Your task to perform on an android device: Empty the shopping cart on walmart. Search for "macbook air" on walmart, select the first entry, add it to the cart, then select checkout. Image 0: 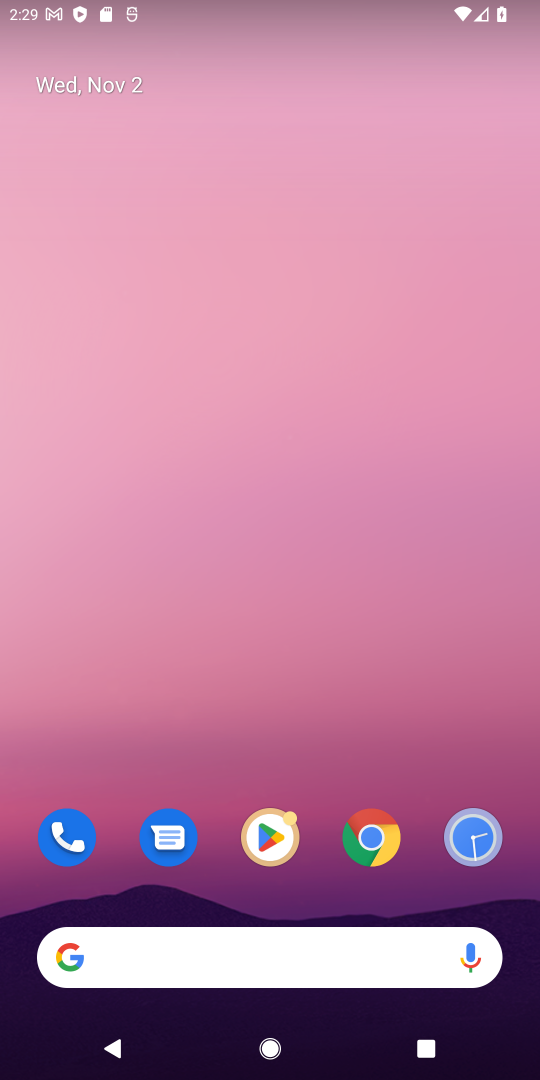
Step 0: press home button
Your task to perform on an android device: Empty the shopping cart on walmart. Search for "macbook air" on walmart, select the first entry, add it to the cart, then select checkout. Image 1: 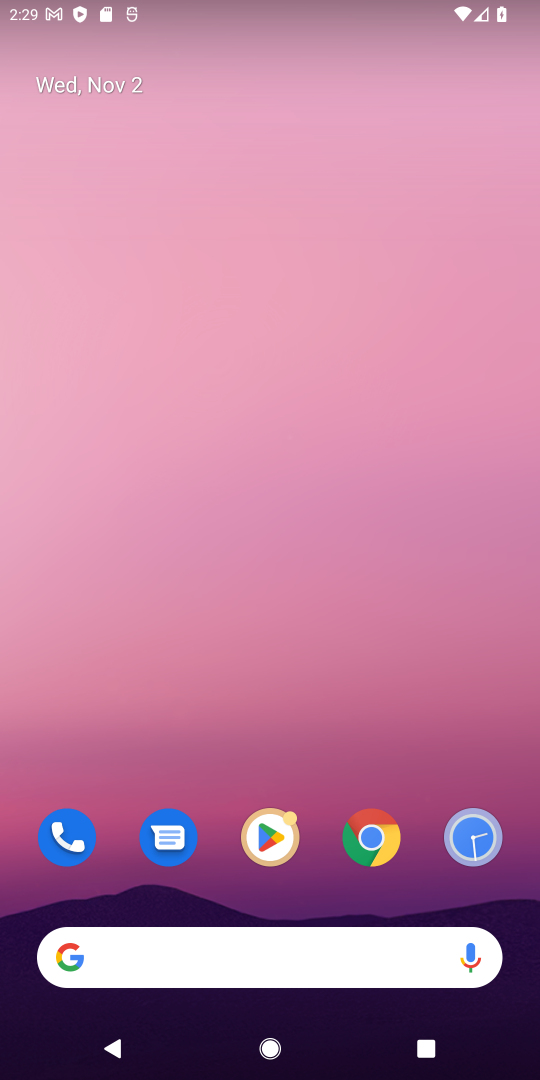
Step 1: drag from (314, 794) to (359, 3)
Your task to perform on an android device: Empty the shopping cart on walmart. Search for "macbook air" on walmart, select the first entry, add it to the cart, then select checkout. Image 2: 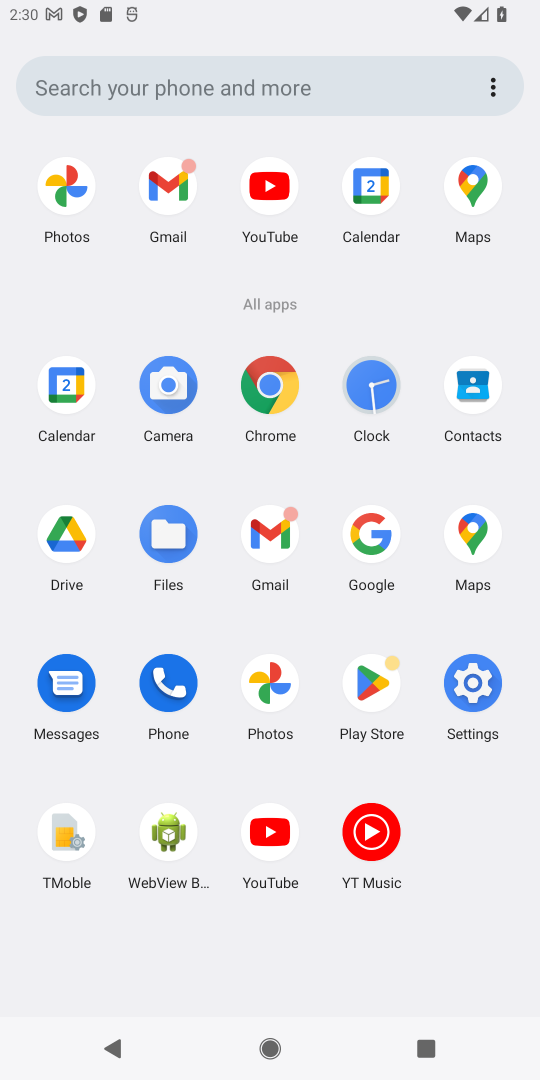
Step 2: click (269, 380)
Your task to perform on an android device: Empty the shopping cart on walmart. Search for "macbook air" on walmart, select the first entry, add it to the cart, then select checkout. Image 3: 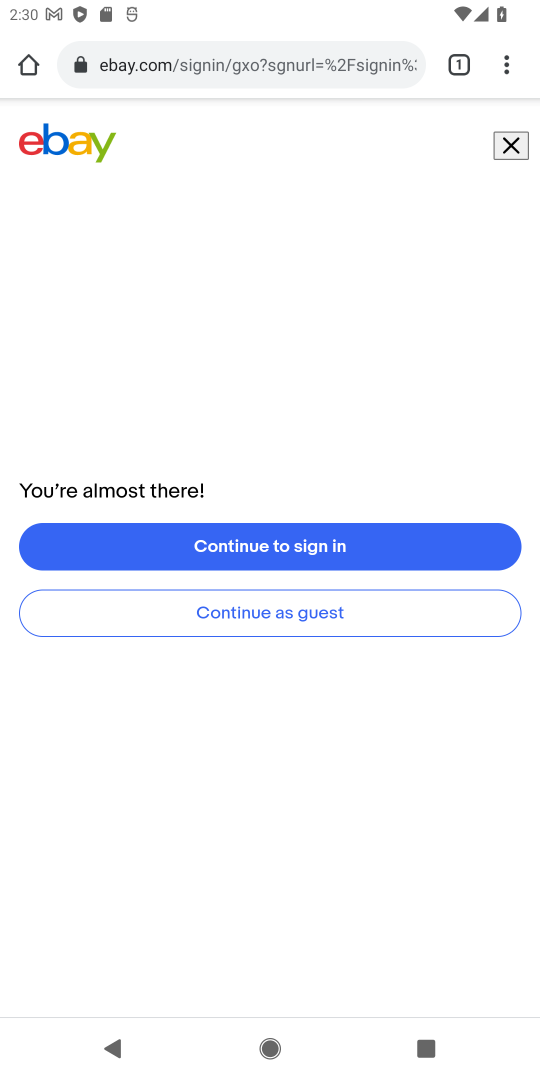
Step 3: click (206, 61)
Your task to perform on an android device: Empty the shopping cart on walmart. Search for "macbook air" on walmart, select the first entry, add it to the cart, then select checkout. Image 4: 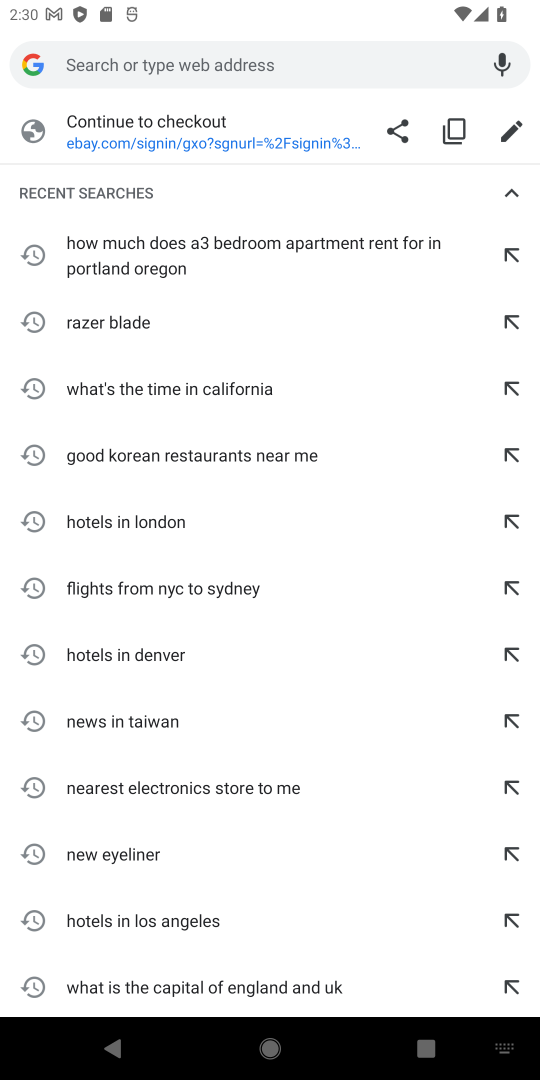
Step 4: type "walmart"
Your task to perform on an android device: Empty the shopping cart on walmart. Search for "macbook air" on walmart, select the first entry, add it to the cart, then select checkout. Image 5: 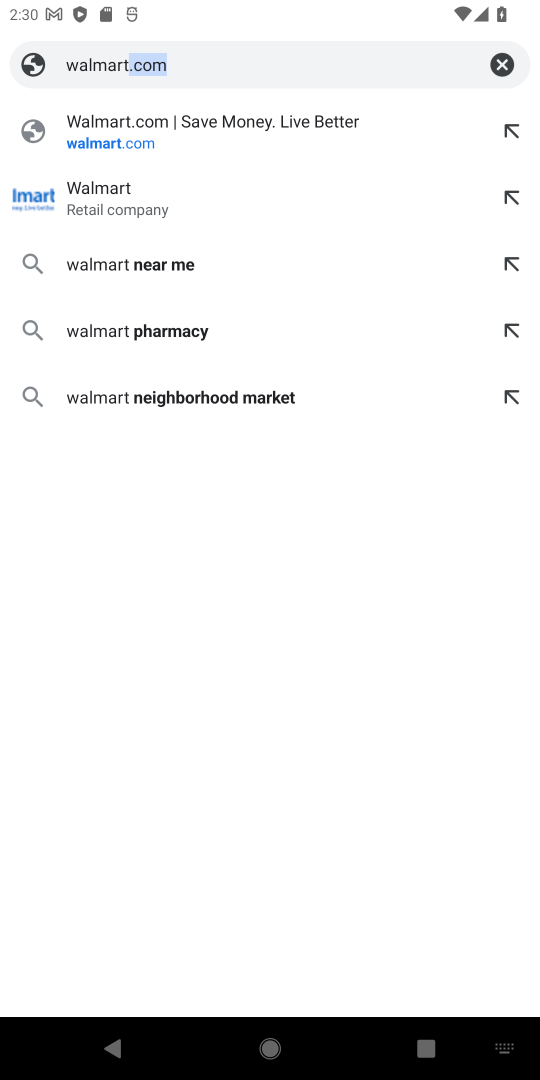
Step 5: click (139, 130)
Your task to perform on an android device: Empty the shopping cart on walmart. Search for "macbook air" on walmart, select the first entry, add it to the cart, then select checkout. Image 6: 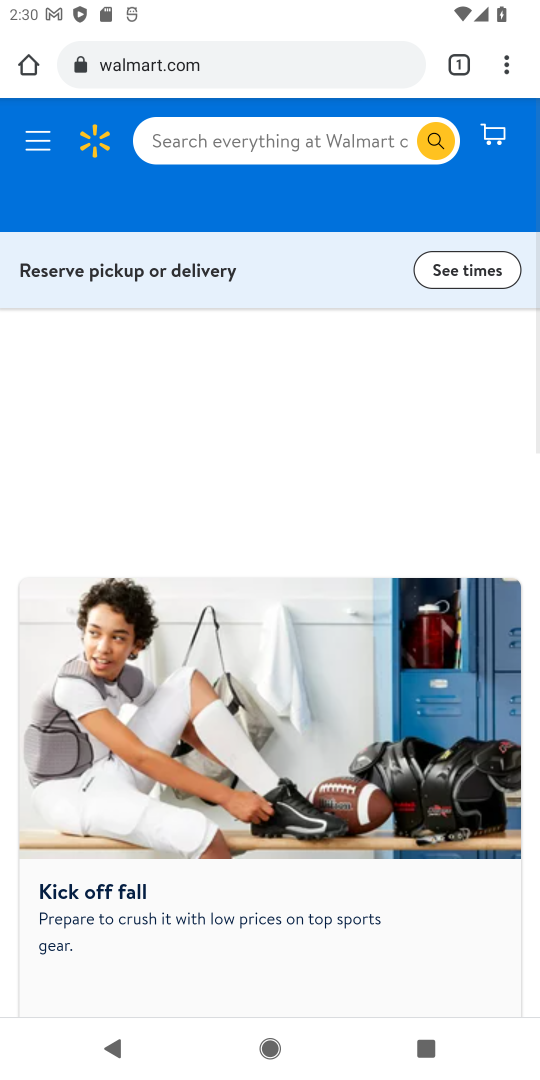
Step 6: click (211, 131)
Your task to perform on an android device: Empty the shopping cart on walmart. Search for "macbook air" on walmart, select the first entry, add it to the cart, then select checkout. Image 7: 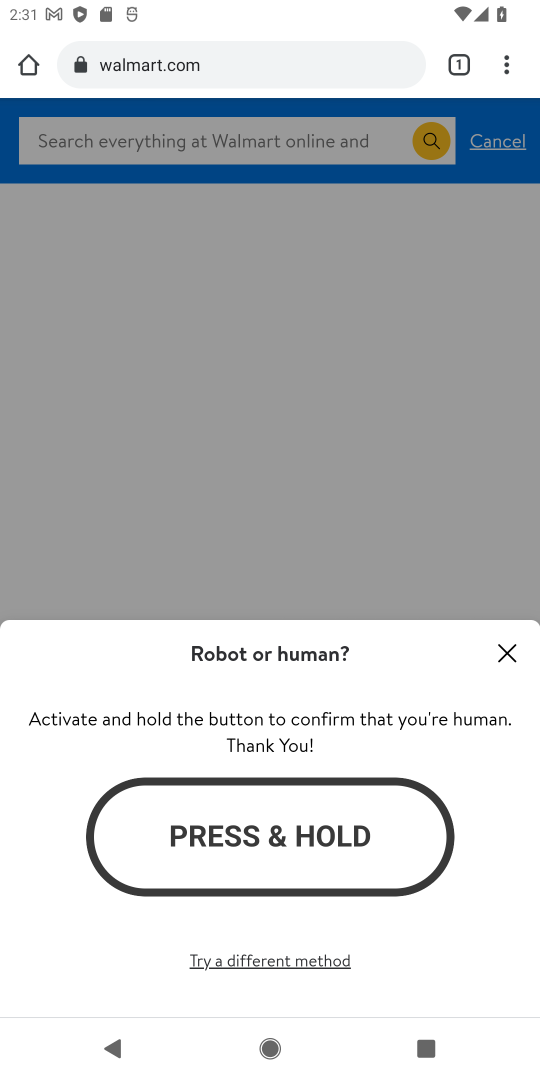
Step 7: click (511, 645)
Your task to perform on an android device: Empty the shopping cart on walmart. Search for "macbook air" on walmart, select the first entry, add it to the cart, then select checkout. Image 8: 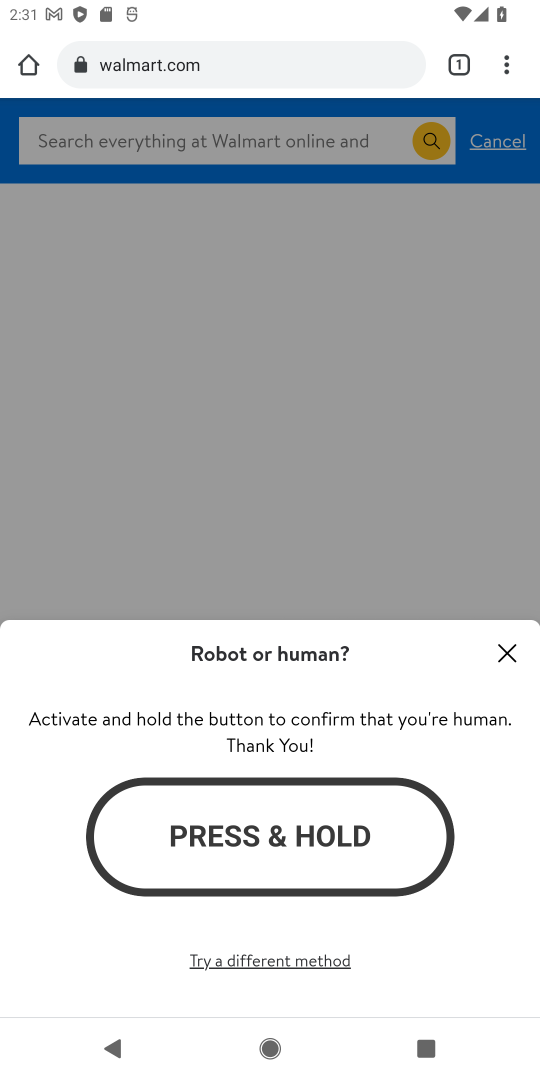
Step 8: click (502, 646)
Your task to perform on an android device: Empty the shopping cart on walmart. Search for "macbook air" on walmart, select the first entry, add it to the cart, then select checkout. Image 9: 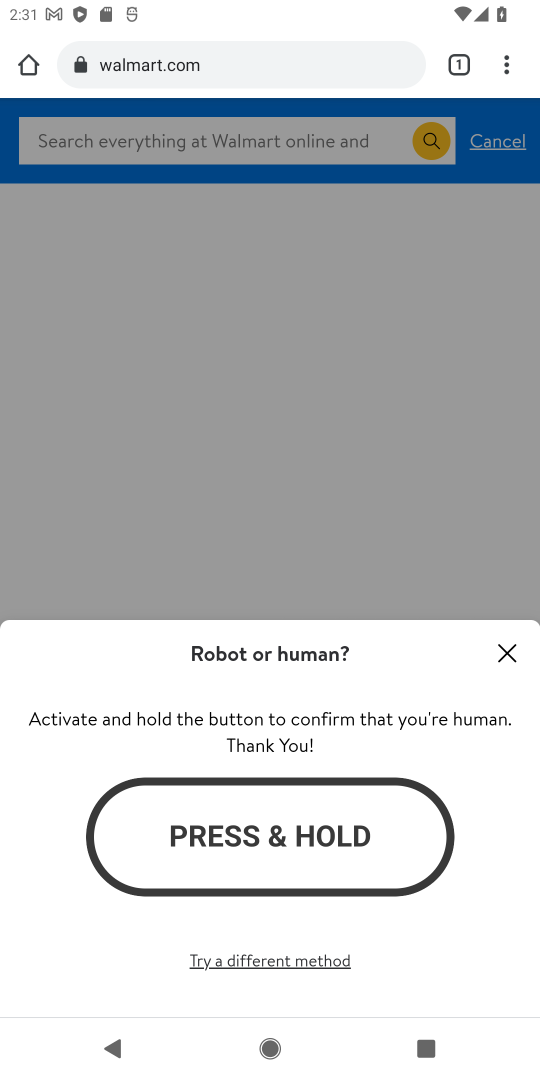
Step 9: click (91, 140)
Your task to perform on an android device: Empty the shopping cart on walmart. Search for "macbook air" on walmart, select the first entry, add it to the cart, then select checkout. Image 10: 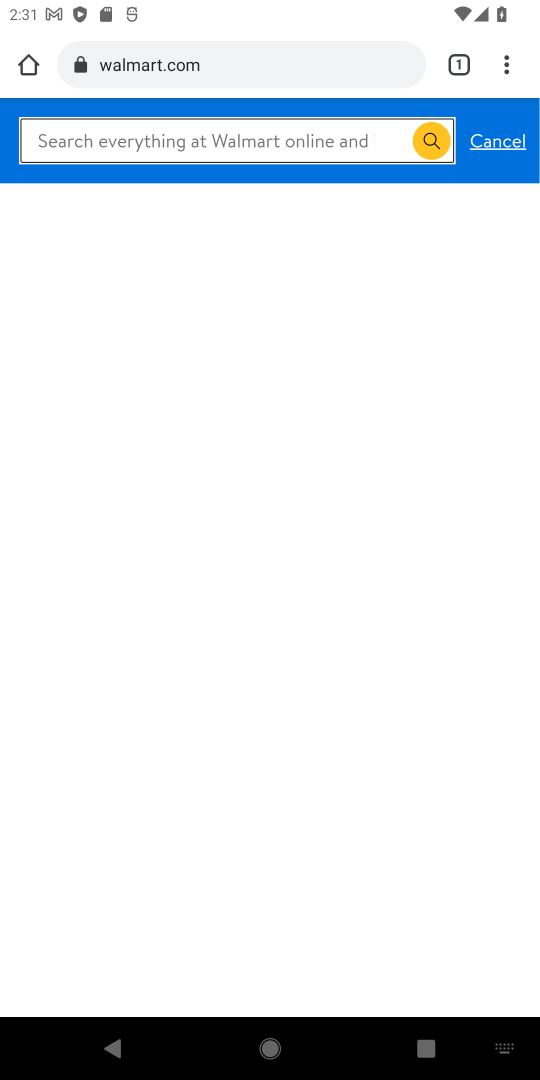
Step 10: type "macbook air"
Your task to perform on an android device: Empty the shopping cart on walmart. Search for "macbook air" on walmart, select the first entry, add it to the cart, then select checkout. Image 11: 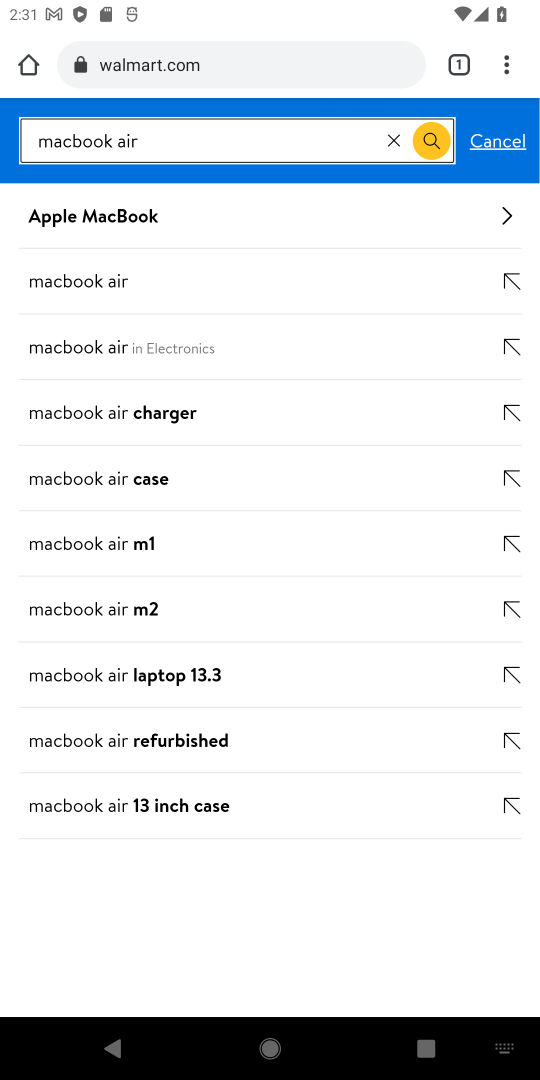
Step 11: click (109, 290)
Your task to perform on an android device: Empty the shopping cart on walmart. Search for "macbook air" on walmart, select the first entry, add it to the cart, then select checkout. Image 12: 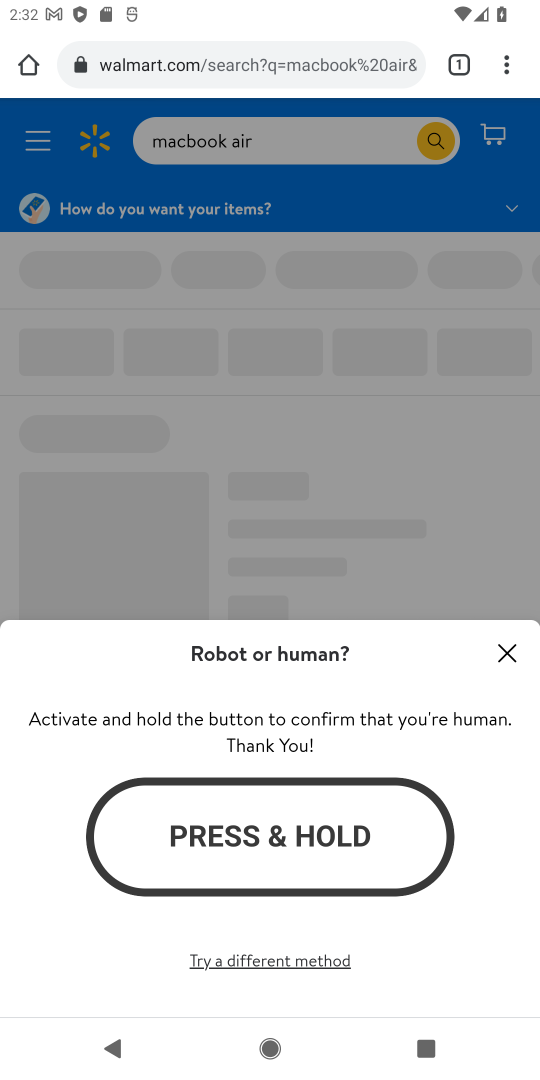
Step 12: click (508, 651)
Your task to perform on an android device: Empty the shopping cart on walmart. Search for "macbook air" on walmart, select the first entry, add it to the cart, then select checkout. Image 13: 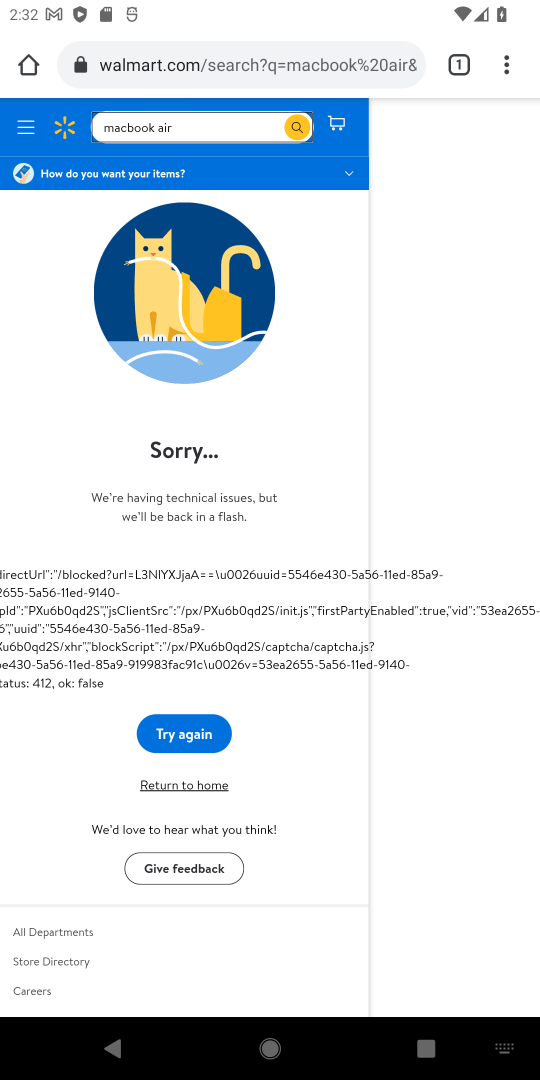
Step 13: click (176, 735)
Your task to perform on an android device: Empty the shopping cart on walmart. Search for "macbook air" on walmart, select the first entry, add it to the cart, then select checkout. Image 14: 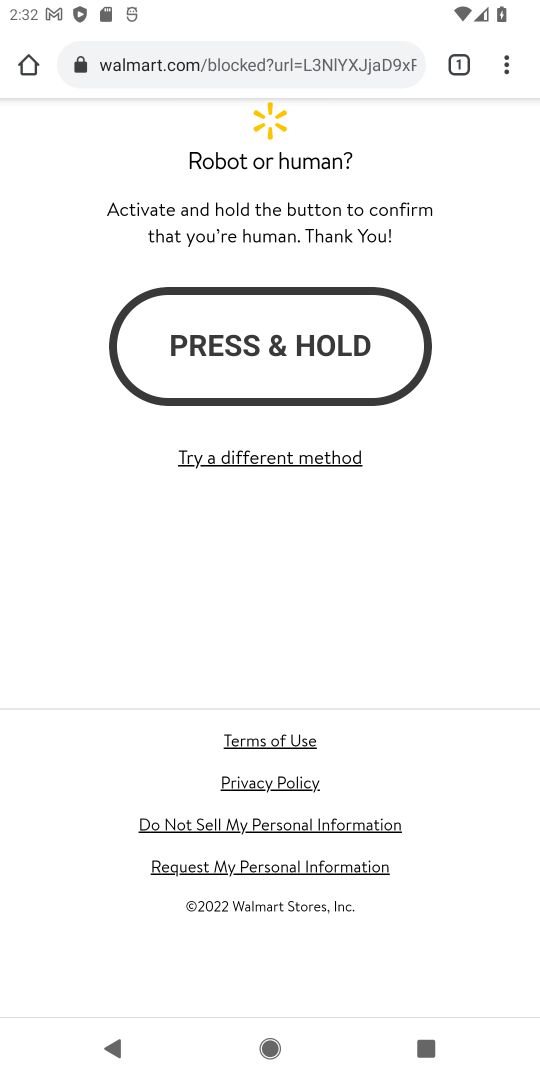
Step 14: task complete